Your task to perform on an android device: Open the Play Movies app and select the watchlist tab. Image 0: 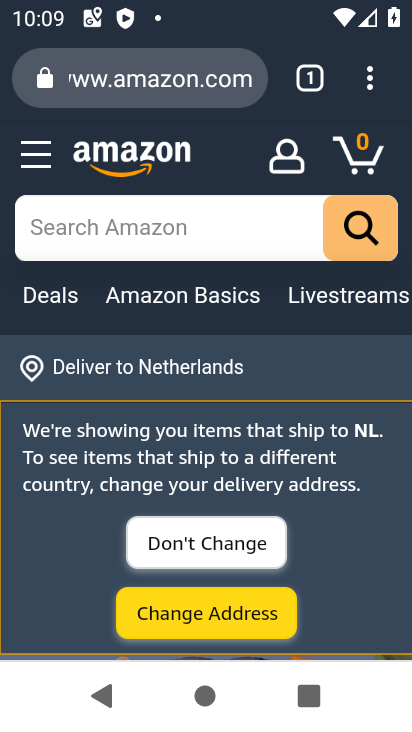
Step 0: press home button
Your task to perform on an android device: Open the Play Movies app and select the watchlist tab. Image 1: 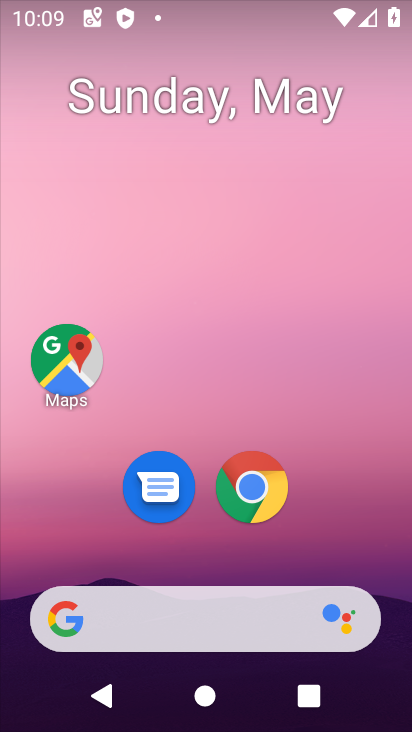
Step 1: drag from (361, 554) to (324, 183)
Your task to perform on an android device: Open the Play Movies app and select the watchlist tab. Image 2: 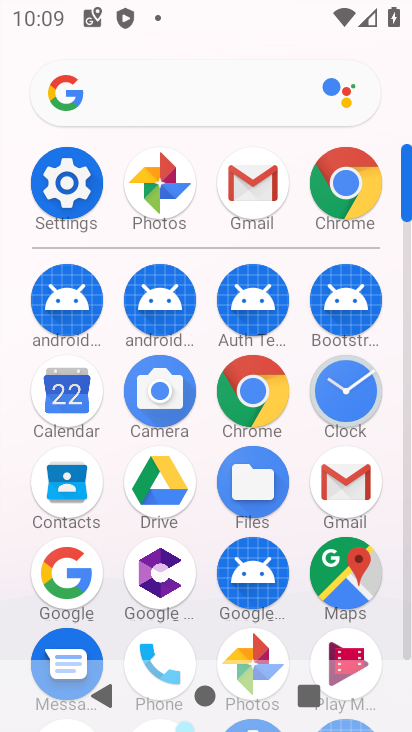
Step 2: drag from (290, 535) to (289, 367)
Your task to perform on an android device: Open the Play Movies app and select the watchlist tab. Image 3: 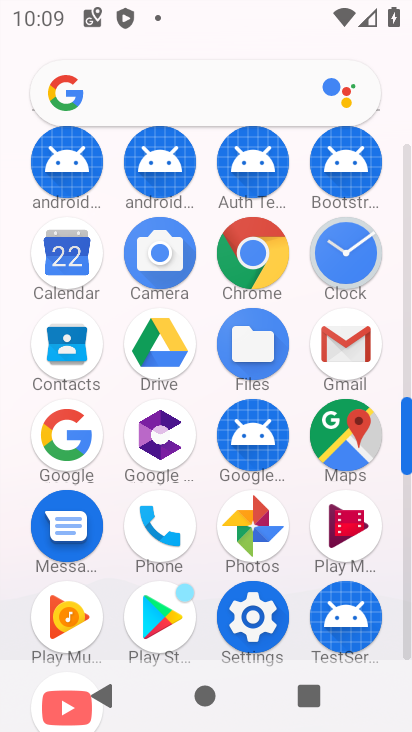
Step 3: click (364, 537)
Your task to perform on an android device: Open the Play Movies app and select the watchlist tab. Image 4: 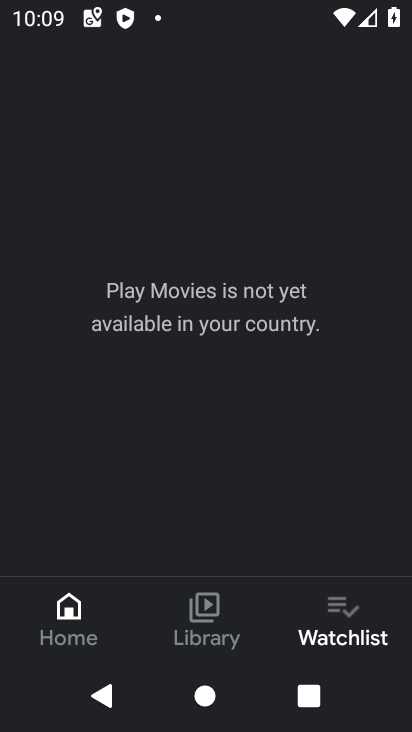
Step 4: task complete